Your task to perform on an android device: install app "Spotify: Music and Podcasts" Image 0: 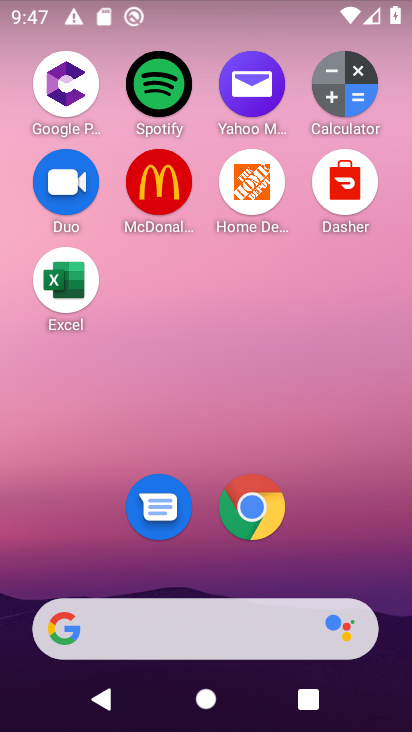
Step 0: click (153, 80)
Your task to perform on an android device: install app "Spotify: Music and Podcasts" Image 1: 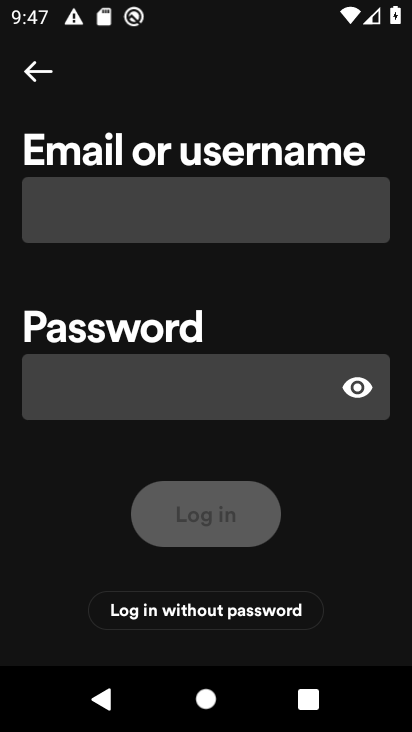
Step 1: task complete